Your task to perform on an android device: toggle javascript in the chrome app Image 0: 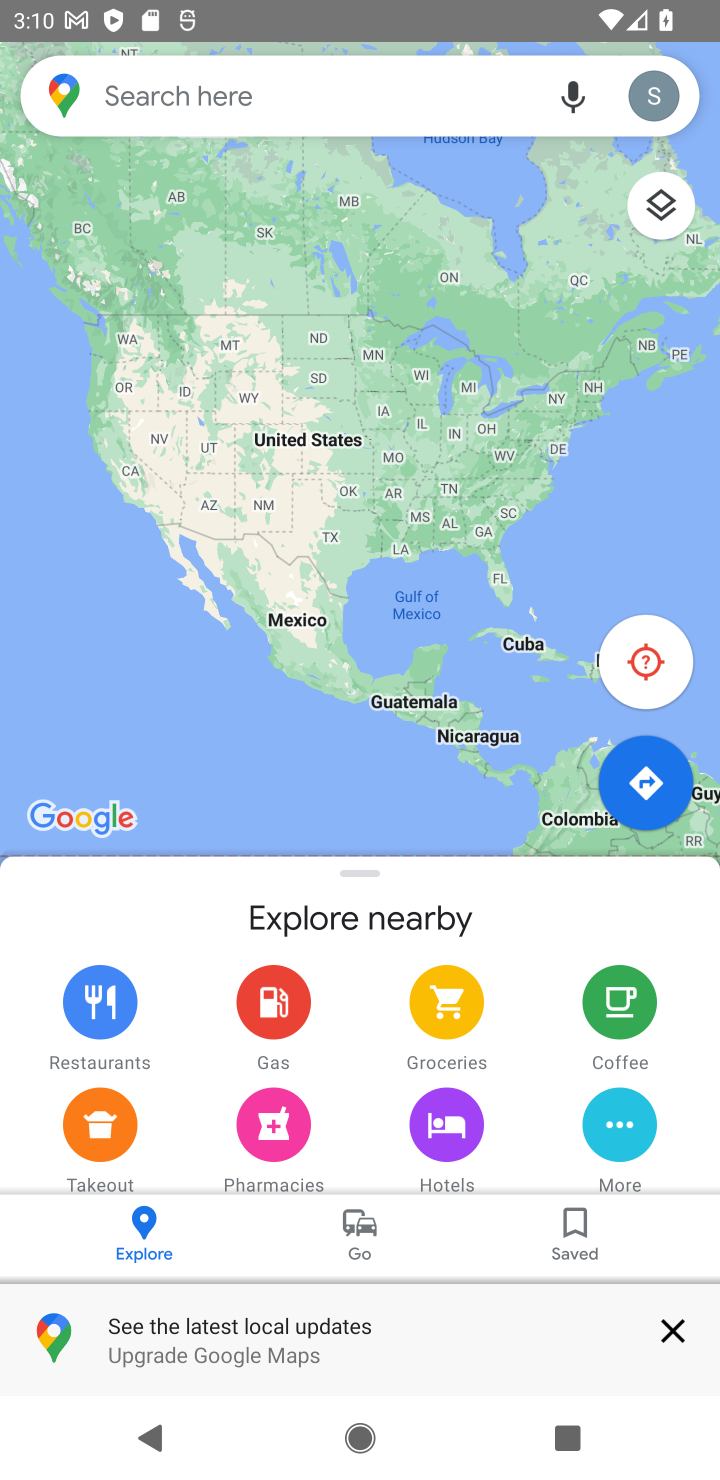
Step 0: press home button
Your task to perform on an android device: toggle javascript in the chrome app Image 1: 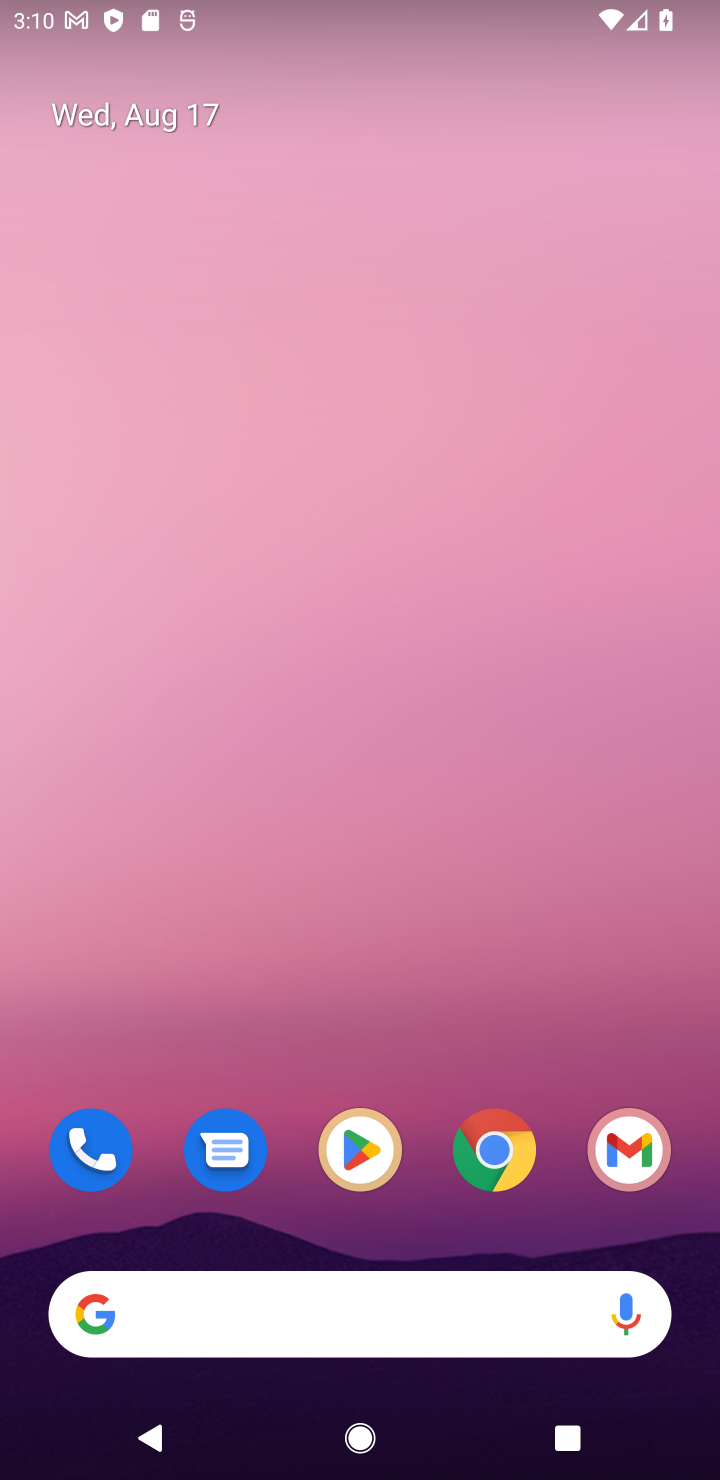
Step 1: drag from (569, 1183) to (227, 53)
Your task to perform on an android device: toggle javascript in the chrome app Image 2: 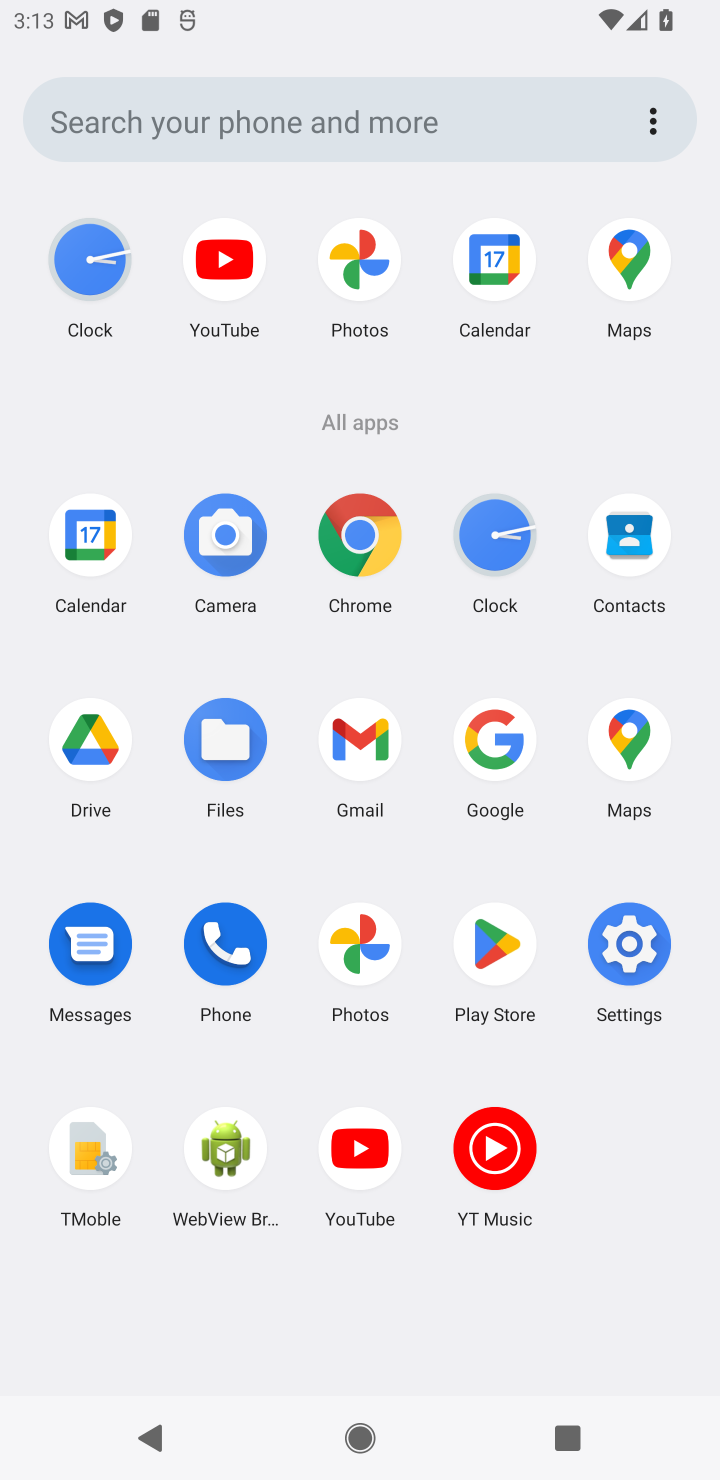
Step 2: click (345, 519)
Your task to perform on an android device: toggle javascript in the chrome app Image 3: 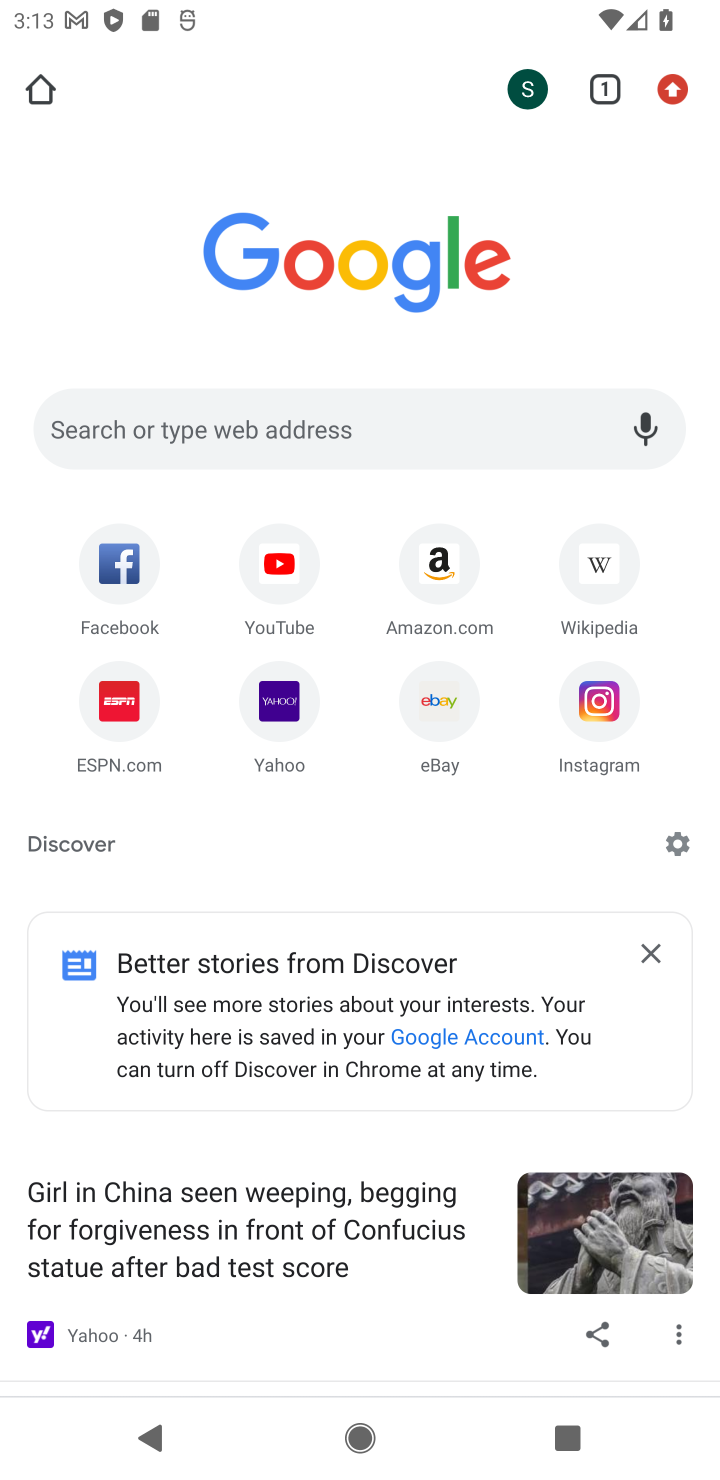
Step 3: click (667, 82)
Your task to perform on an android device: toggle javascript in the chrome app Image 4: 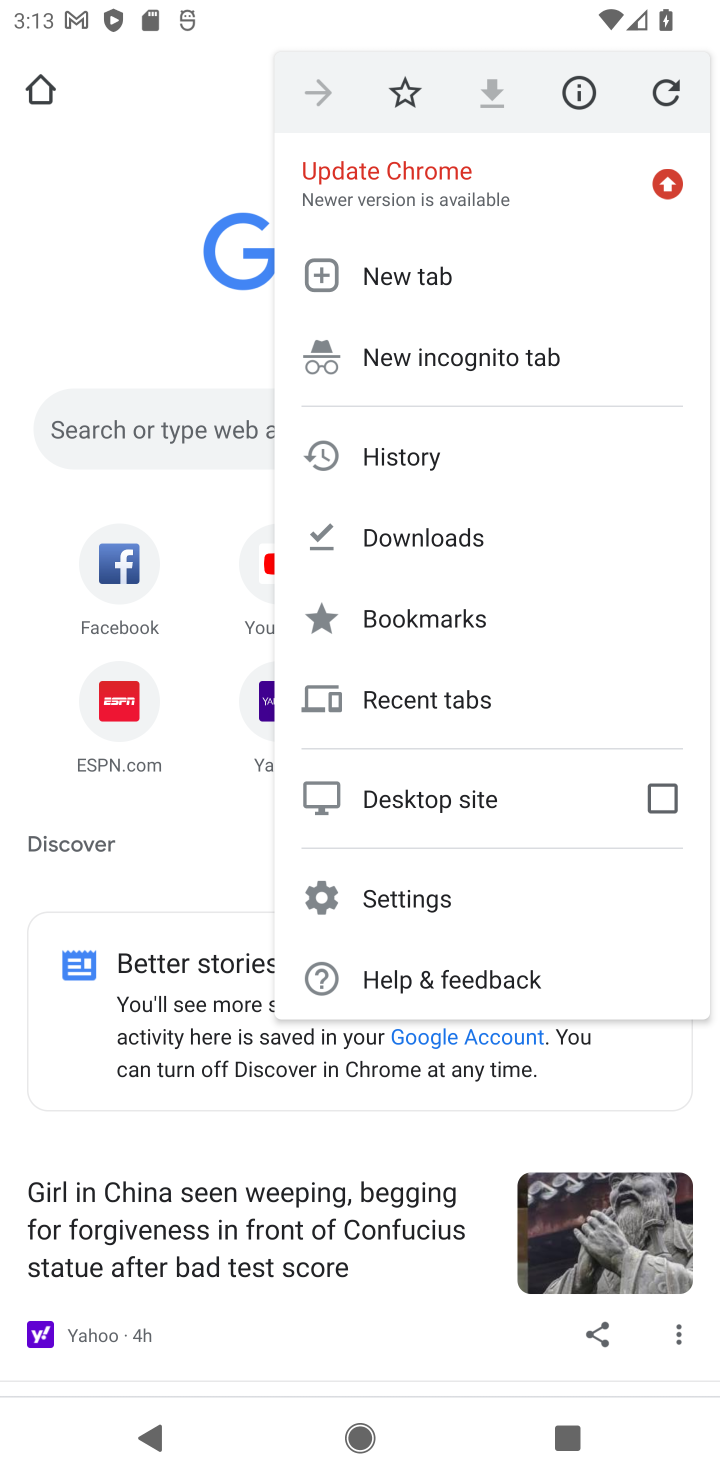
Step 4: click (423, 896)
Your task to perform on an android device: toggle javascript in the chrome app Image 5: 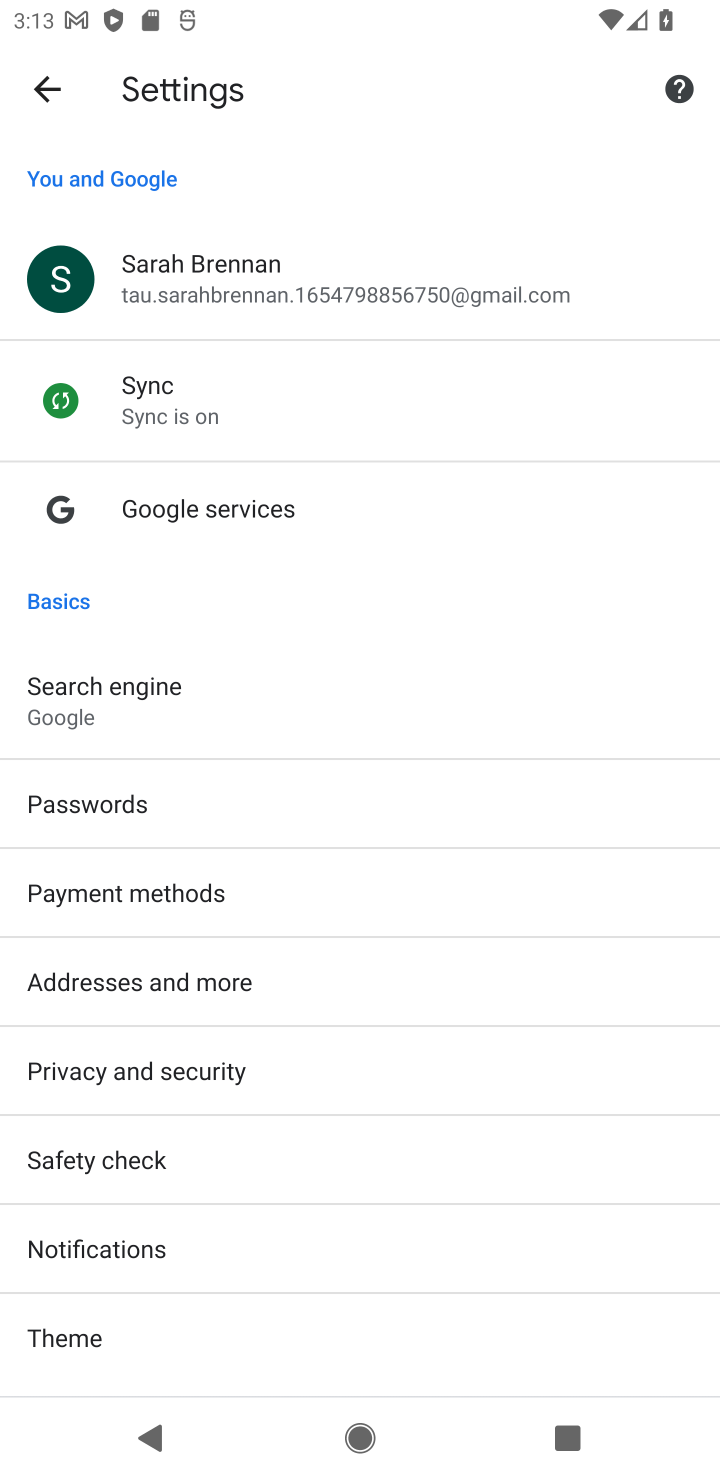
Step 5: drag from (225, 1290) to (275, 414)
Your task to perform on an android device: toggle javascript in the chrome app Image 6: 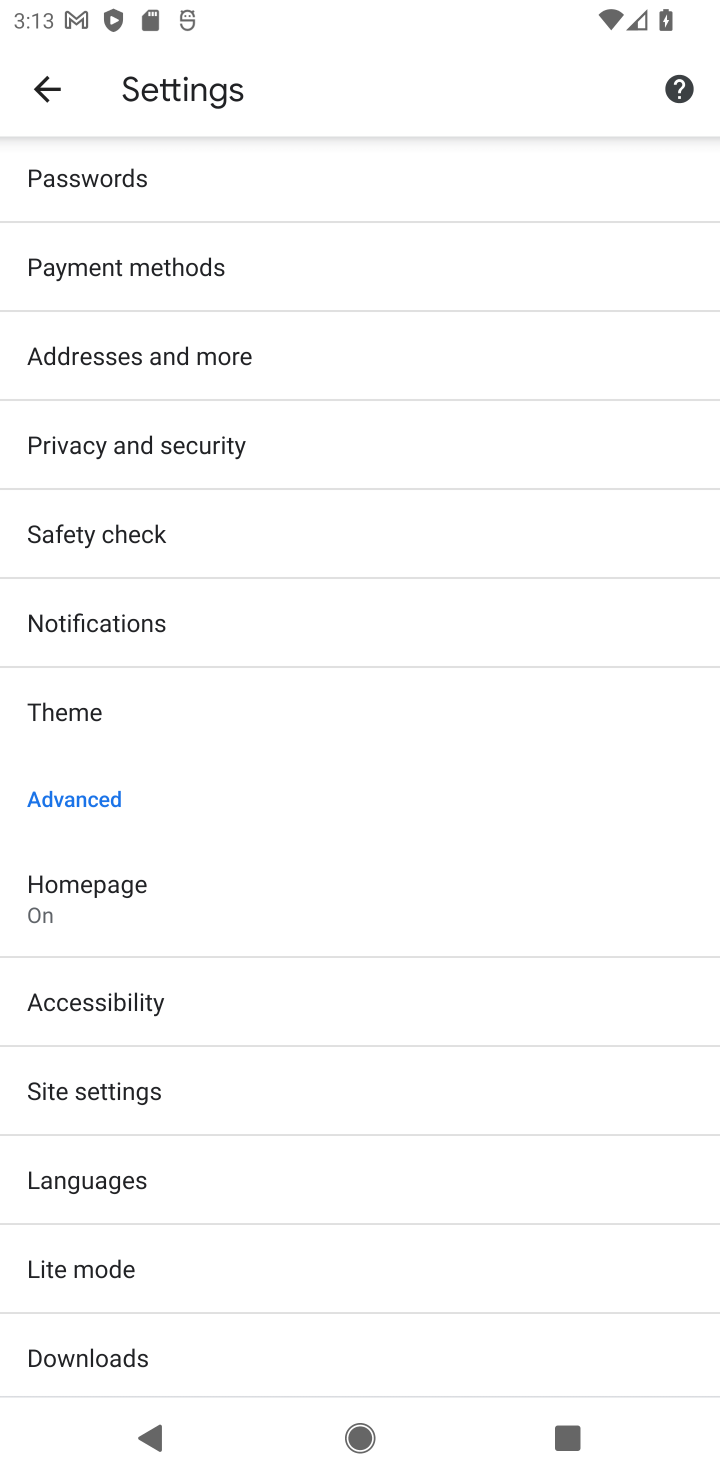
Step 6: click (104, 1096)
Your task to perform on an android device: toggle javascript in the chrome app Image 7: 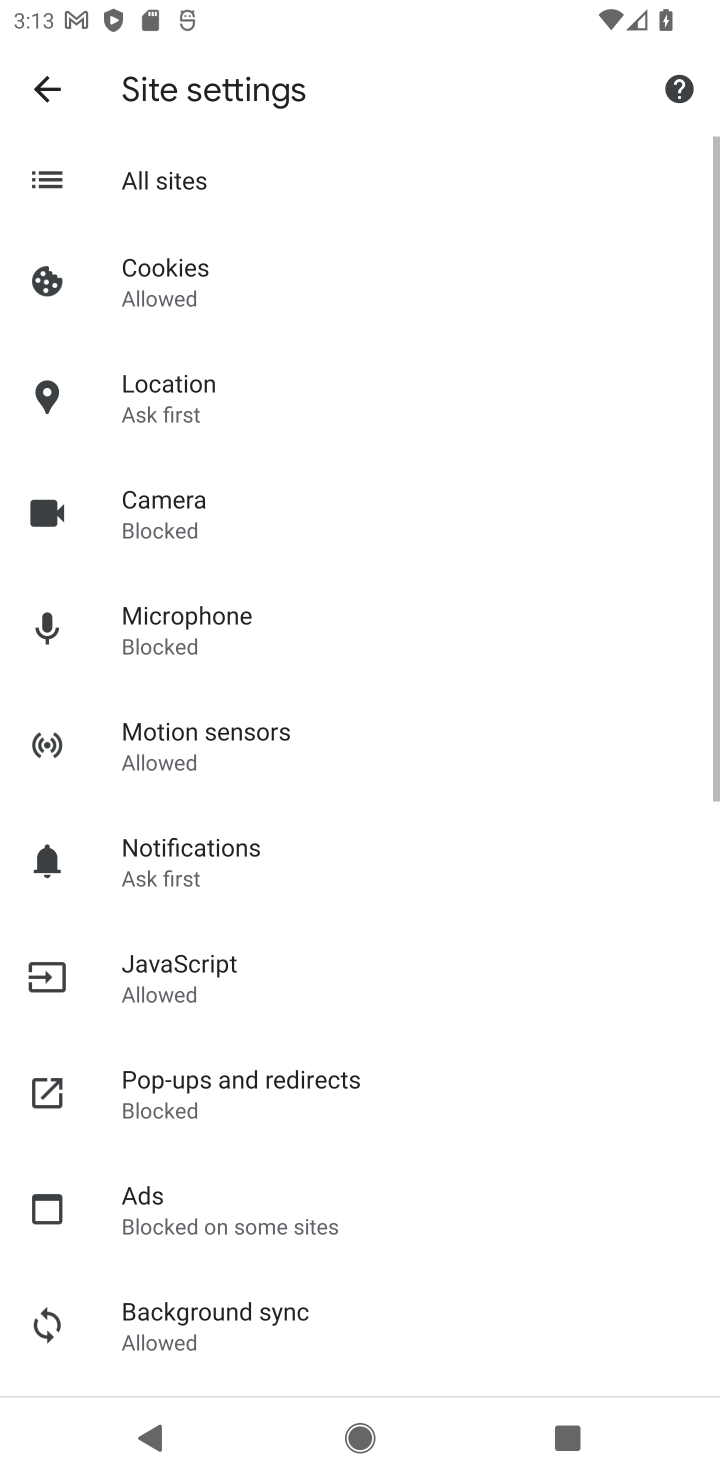
Step 7: click (155, 983)
Your task to perform on an android device: toggle javascript in the chrome app Image 8: 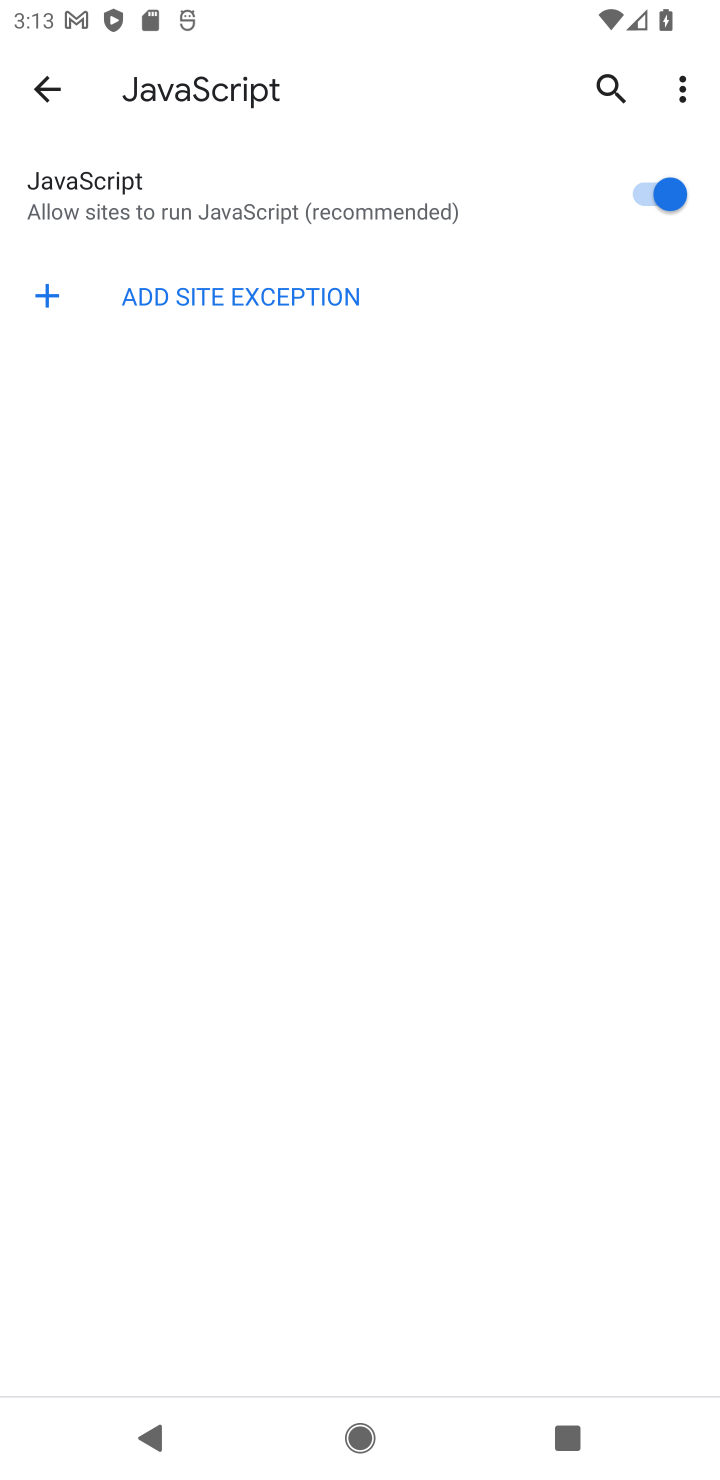
Step 8: click (633, 191)
Your task to perform on an android device: toggle javascript in the chrome app Image 9: 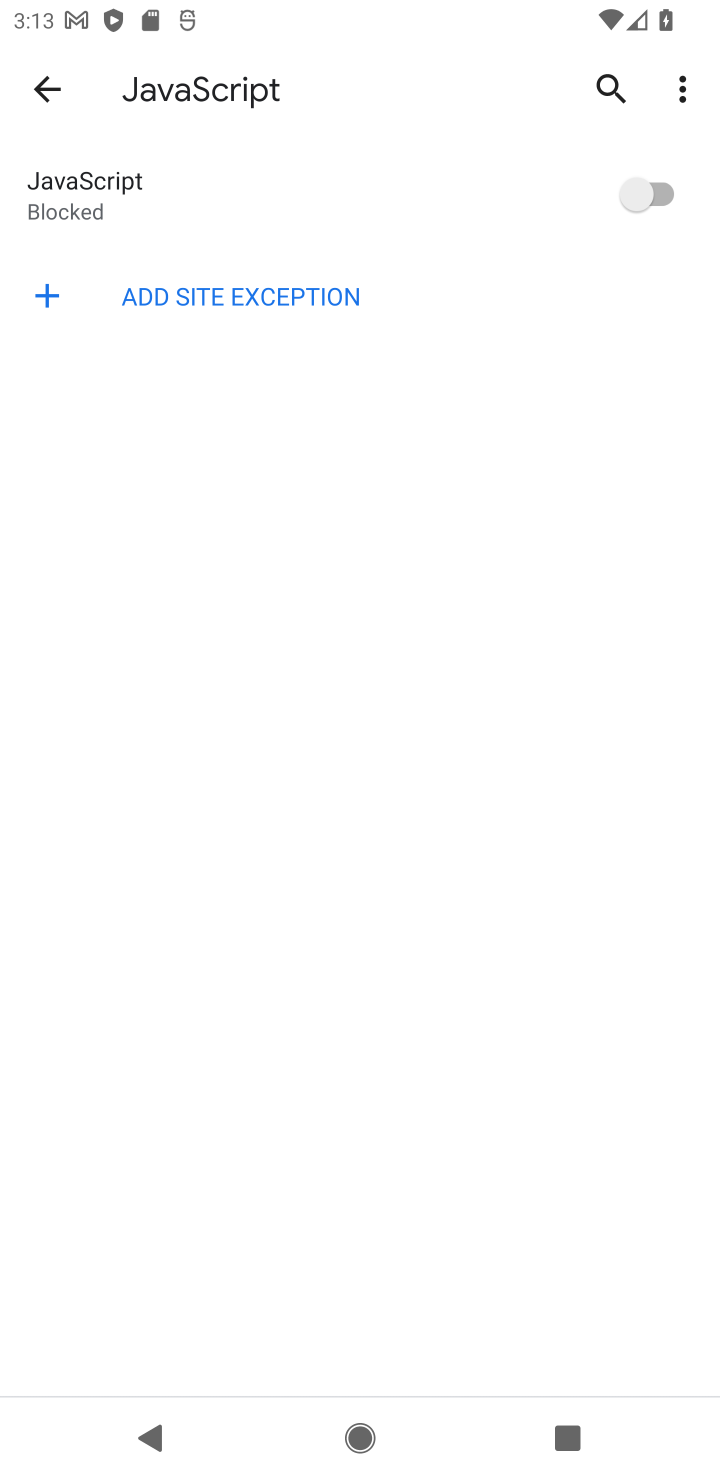
Step 9: task complete